Your task to perform on an android device: change keyboard looks Image 0: 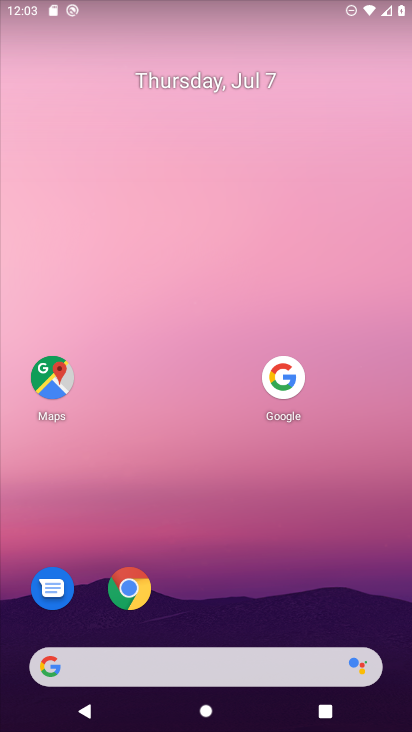
Step 0: drag from (133, 664) to (277, 84)
Your task to perform on an android device: change keyboard looks Image 1: 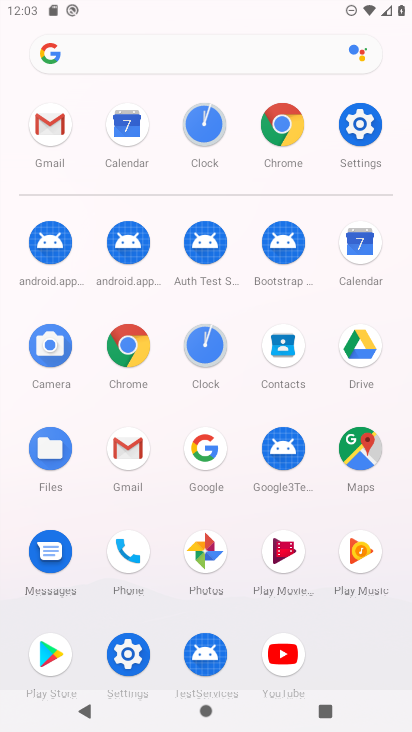
Step 1: click (347, 131)
Your task to perform on an android device: change keyboard looks Image 2: 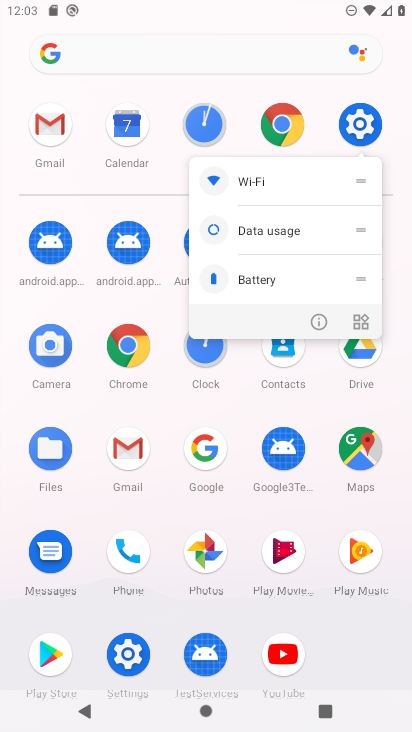
Step 2: click (367, 125)
Your task to perform on an android device: change keyboard looks Image 3: 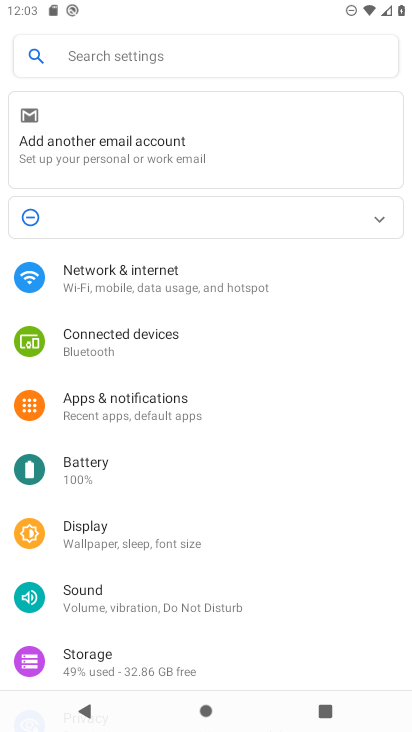
Step 3: drag from (228, 432) to (330, 89)
Your task to perform on an android device: change keyboard looks Image 4: 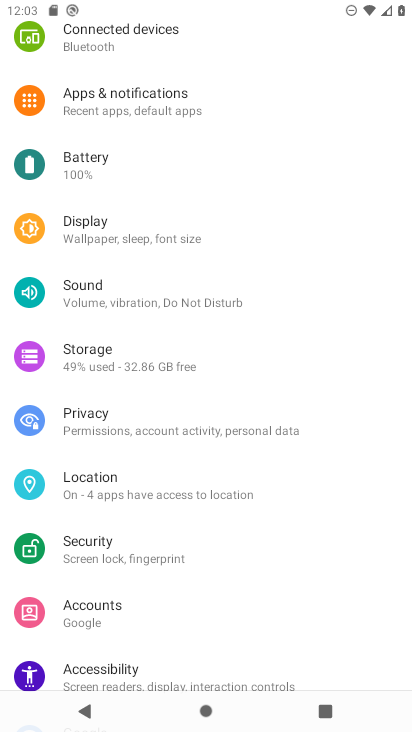
Step 4: drag from (172, 576) to (304, 116)
Your task to perform on an android device: change keyboard looks Image 5: 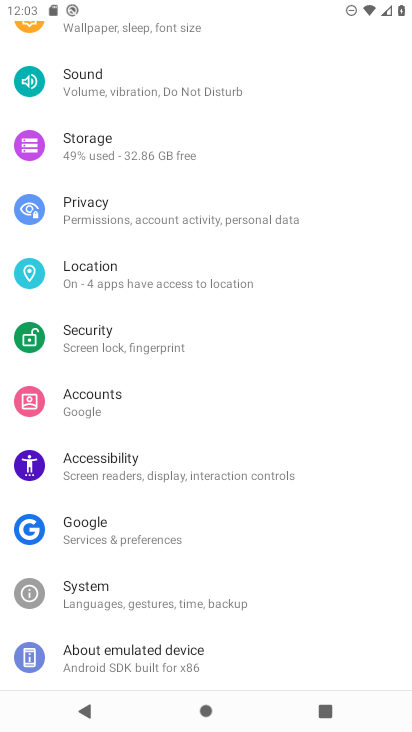
Step 5: click (126, 598)
Your task to perform on an android device: change keyboard looks Image 6: 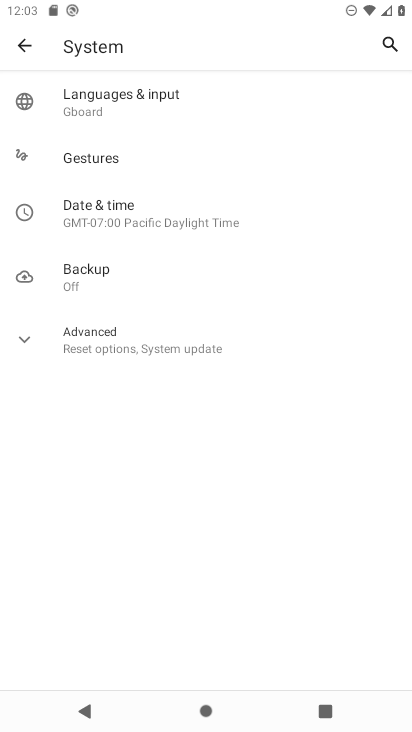
Step 6: click (121, 101)
Your task to perform on an android device: change keyboard looks Image 7: 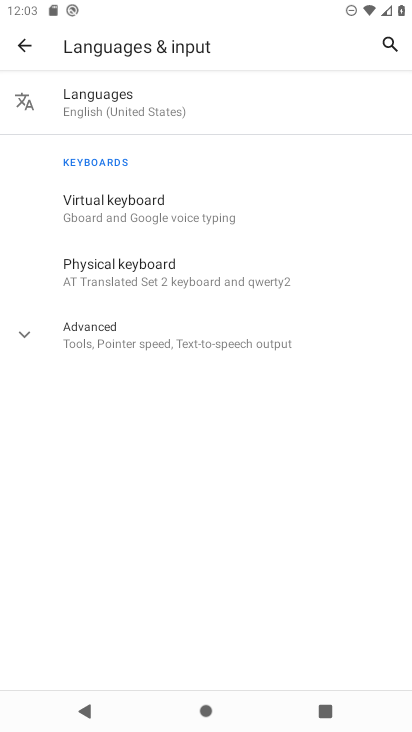
Step 7: click (128, 214)
Your task to perform on an android device: change keyboard looks Image 8: 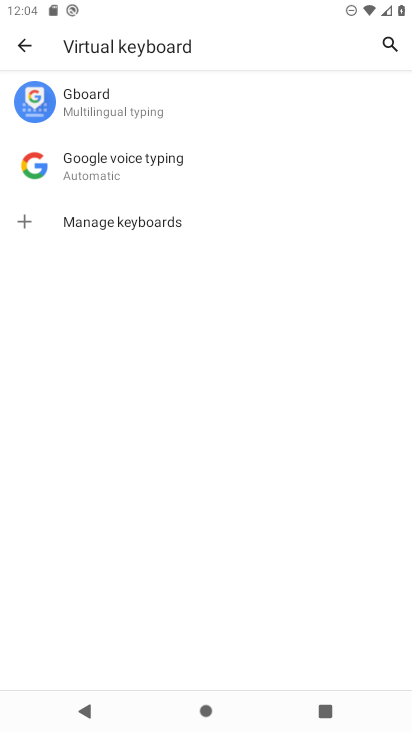
Step 8: click (114, 108)
Your task to perform on an android device: change keyboard looks Image 9: 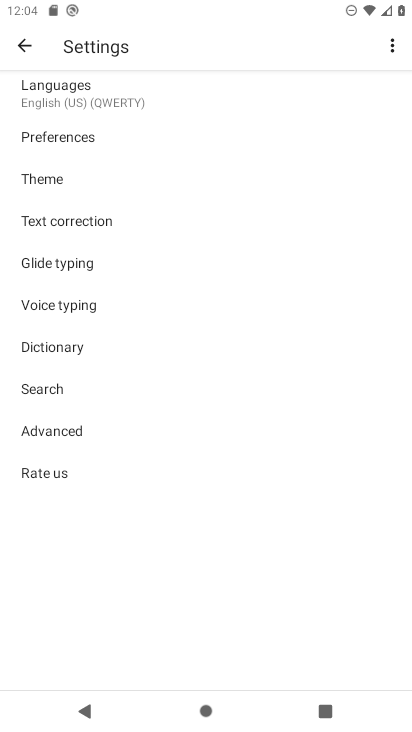
Step 9: click (46, 171)
Your task to perform on an android device: change keyboard looks Image 10: 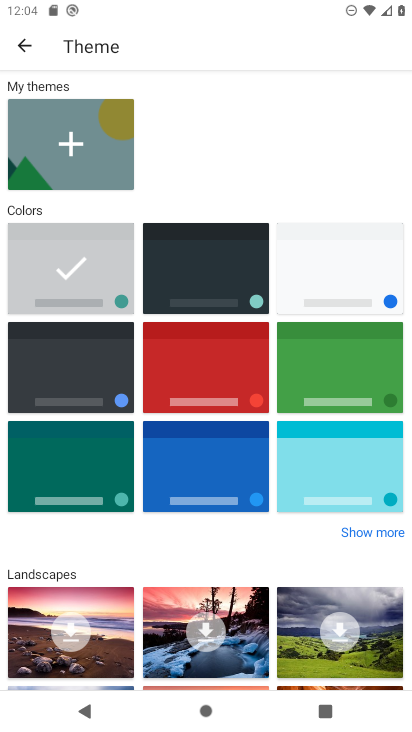
Step 10: click (339, 379)
Your task to perform on an android device: change keyboard looks Image 11: 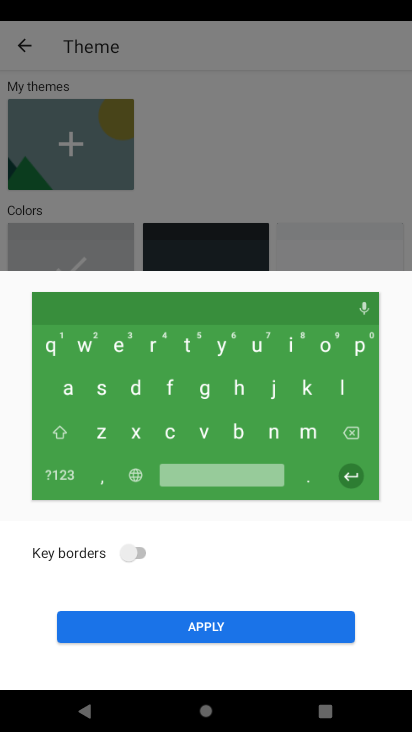
Step 11: click (213, 625)
Your task to perform on an android device: change keyboard looks Image 12: 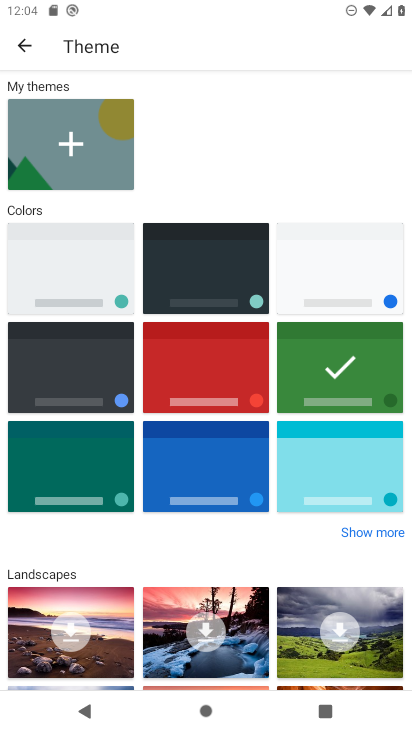
Step 12: task complete